Your task to perform on an android device: turn on improve location accuracy Image 0: 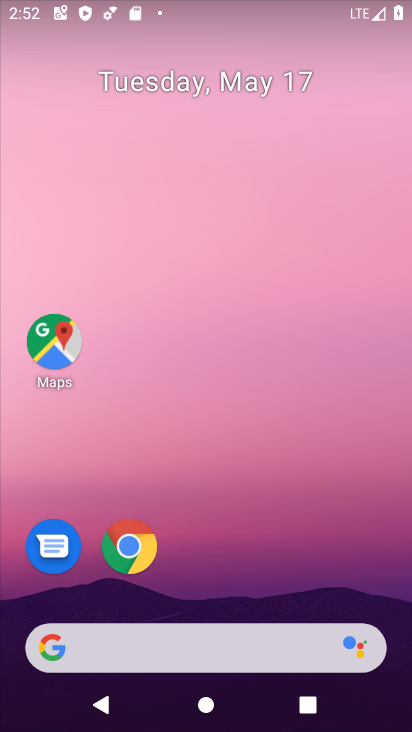
Step 0: drag from (301, 453) to (277, 38)
Your task to perform on an android device: turn on improve location accuracy Image 1: 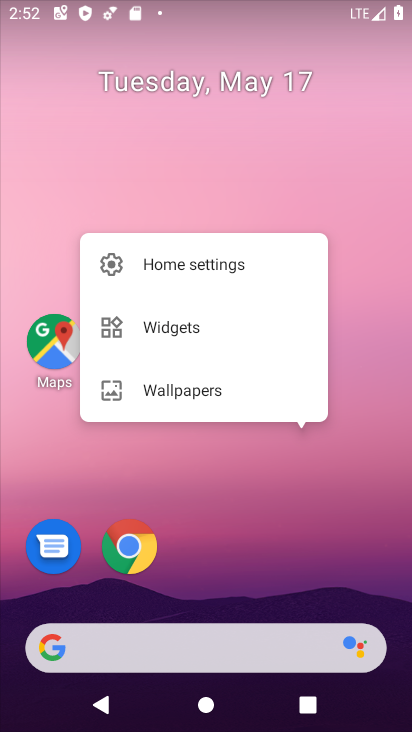
Step 1: drag from (258, 253) to (250, 68)
Your task to perform on an android device: turn on improve location accuracy Image 2: 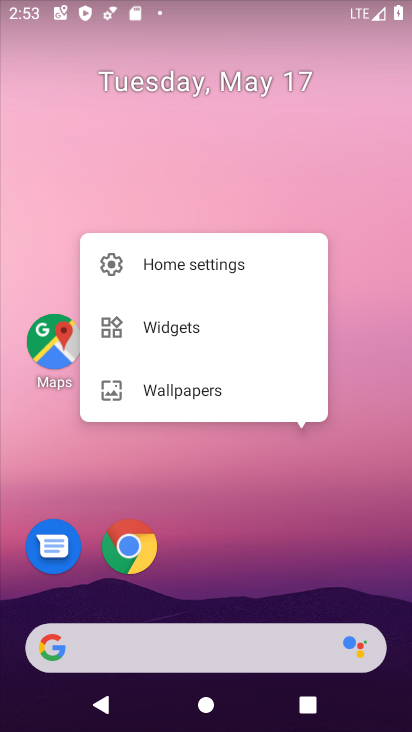
Step 2: click (325, 587)
Your task to perform on an android device: turn on improve location accuracy Image 3: 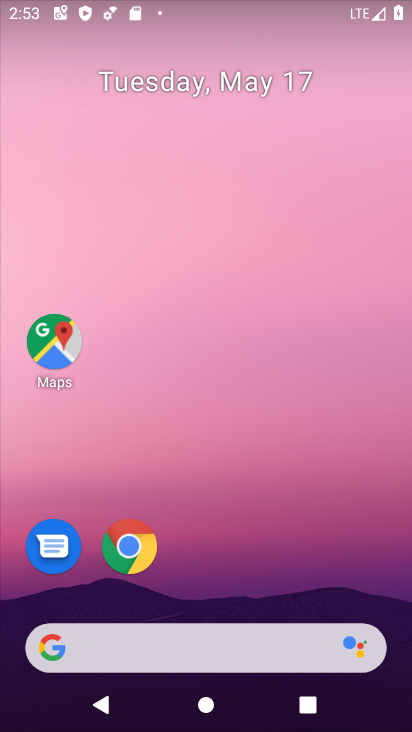
Step 3: drag from (352, 554) to (360, 1)
Your task to perform on an android device: turn on improve location accuracy Image 4: 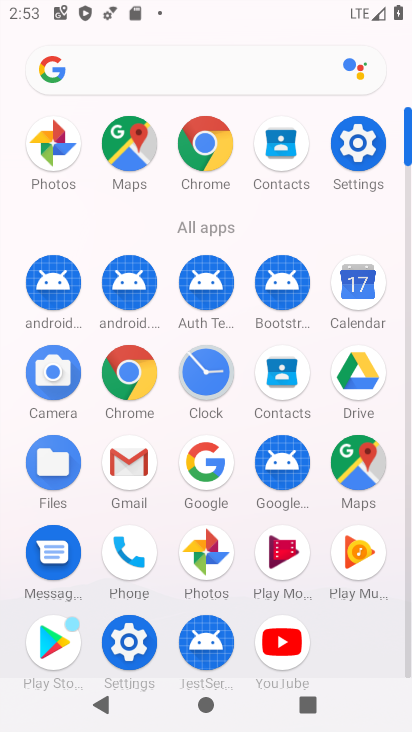
Step 4: click (370, 160)
Your task to perform on an android device: turn on improve location accuracy Image 5: 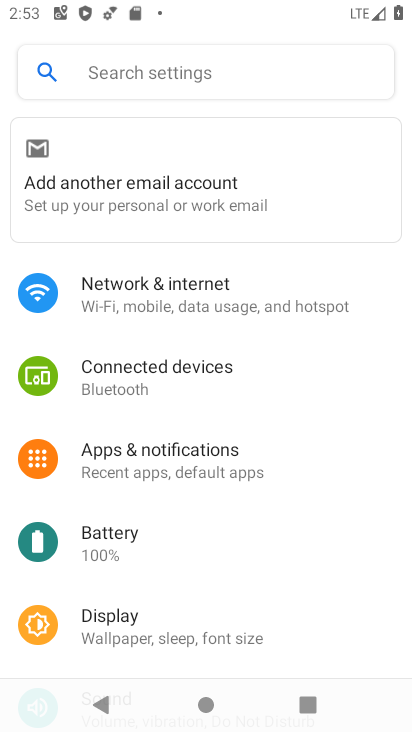
Step 5: drag from (393, 525) to (305, 114)
Your task to perform on an android device: turn on improve location accuracy Image 6: 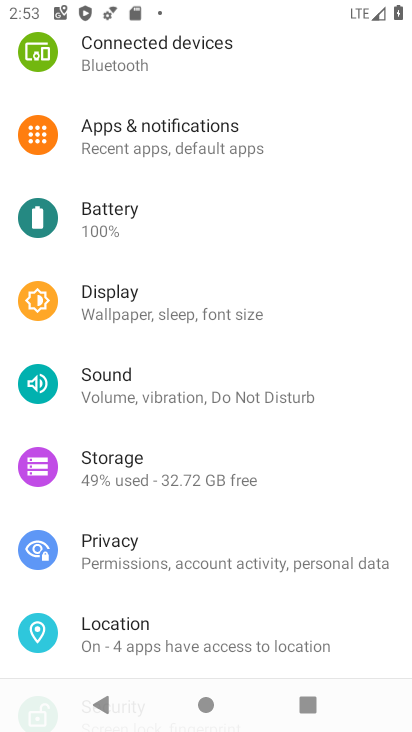
Step 6: click (347, 639)
Your task to perform on an android device: turn on improve location accuracy Image 7: 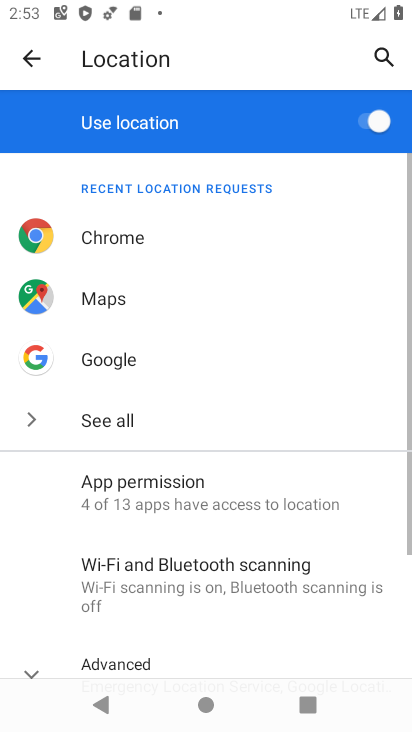
Step 7: drag from (272, 541) to (253, 155)
Your task to perform on an android device: turn on improve location accuracy Image 8: 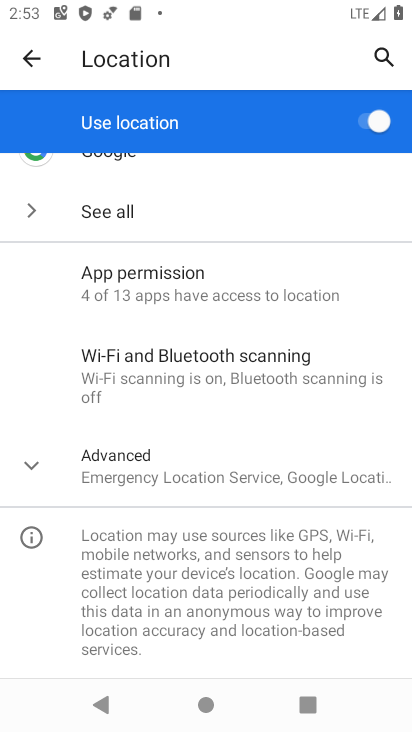
Step 8: click (180, 455)
Your task to perform on an android device: turn on improve location accuracy Image 9: 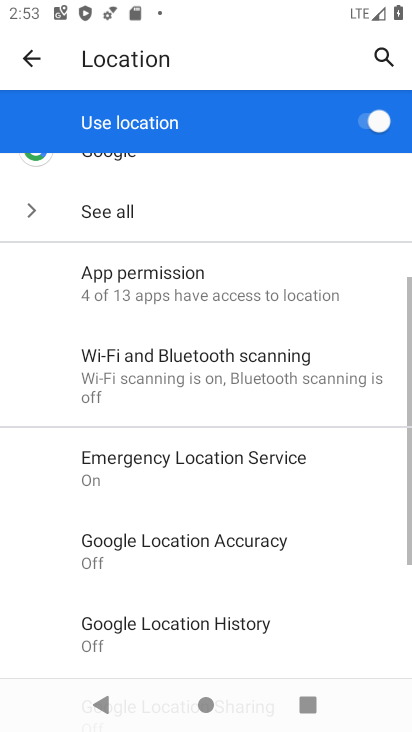
Step 9: click (145, 557)
Your task to perform on an android device: turn on improve location accuracy Image 10: 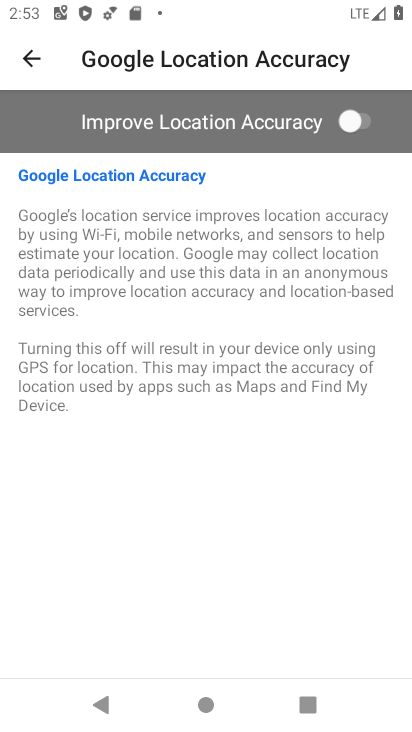
Step 10: click (359, 99)
Your task to perform on an android device: turn on improve location accuracy Image 11: 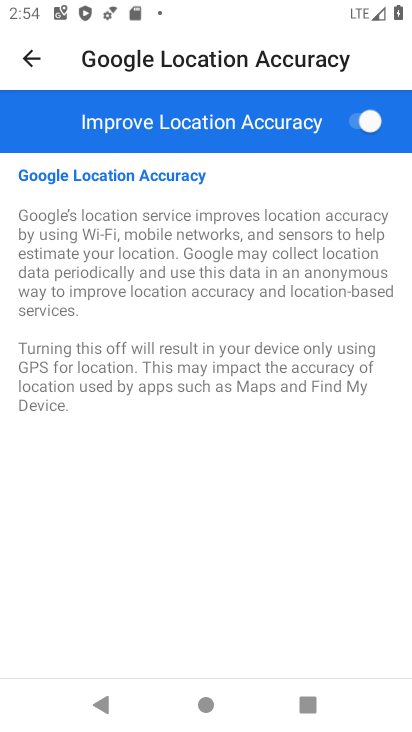
Step 11: task complete